Your task to perform on an android device: toggle location history Image 0: 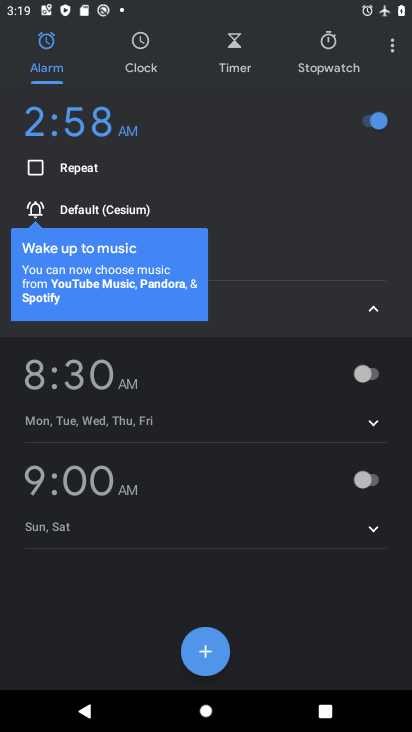
Step 0: press home button
Your task to perform on an android device: toggle location history Image 1: 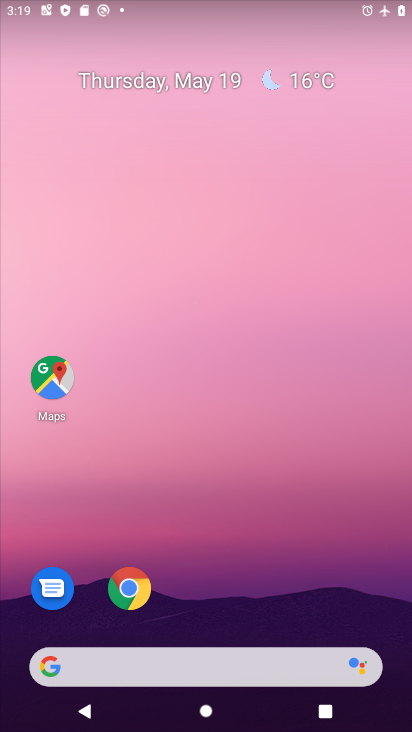
Step 1: drag from (284, 535) to (304, 20)
Your task to perform on an android device: toggle location history Image 2: 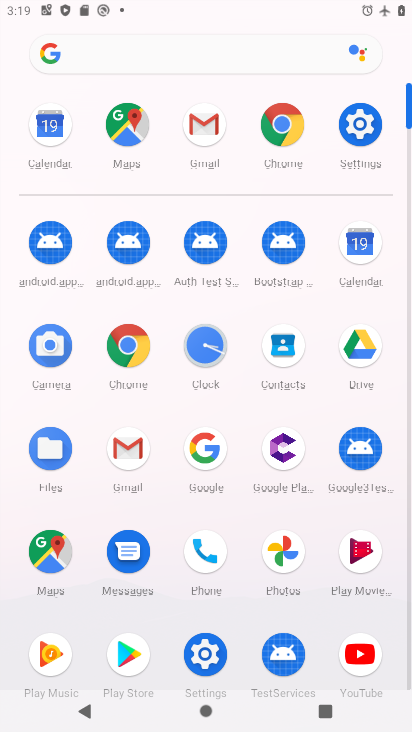
Step 2: click (367, 108)
Your task to perform on an android device: toggle location history Image 3: 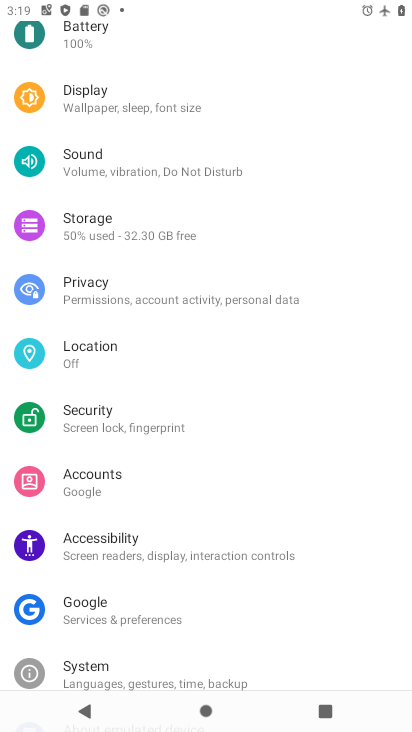
Step 3: drag from (151, 577) to (197, 296)
Your task to perform on an android device: toggle location history Image 4: 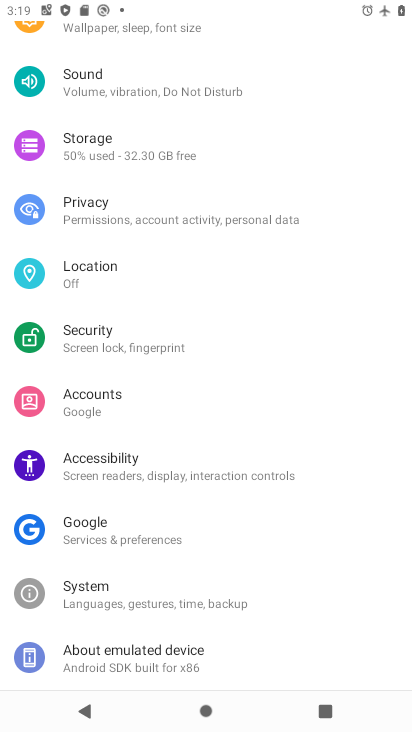
Step 4: click (86, 259)
Your task to perform on an android device: toggle location history Image 5: 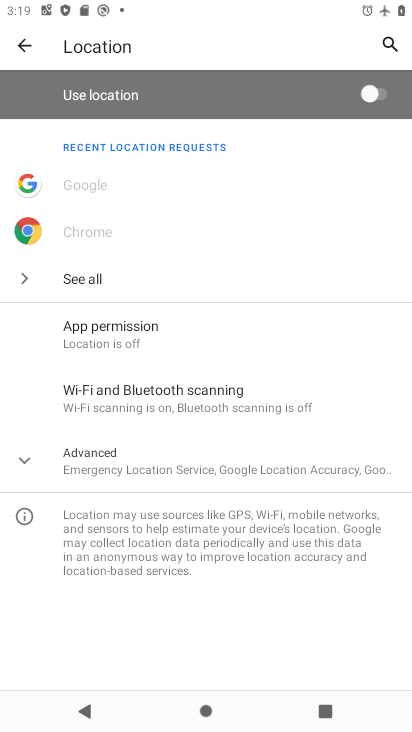
Step 5: click (191, 470)
Your task to perform on an android device: toggle location history Image 6: 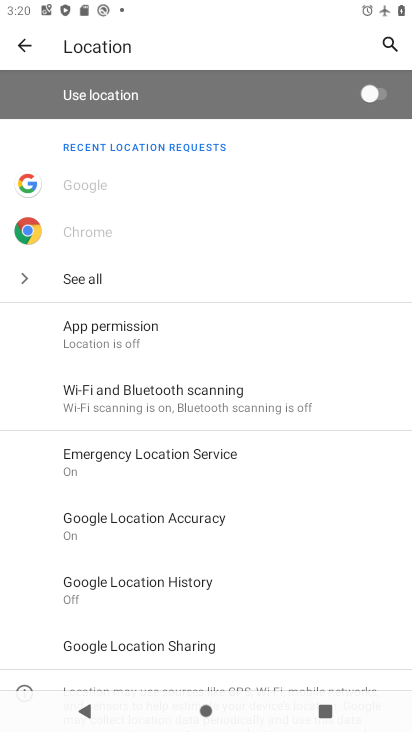
Step 6: click (182, 580)
Your task to perform on an android device: toggle location history Image 7: 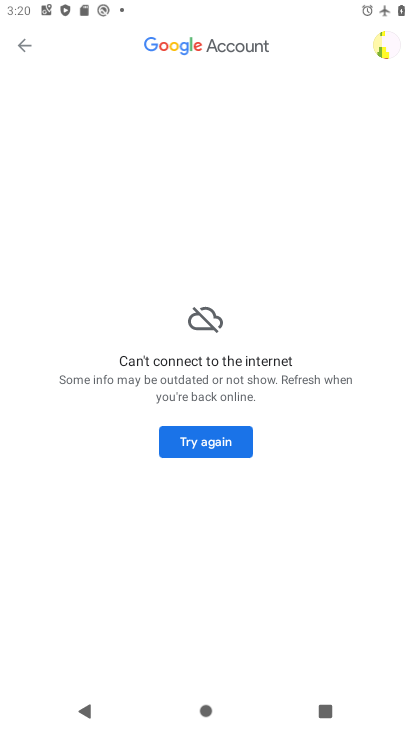
Step 7: task complete